Your task to perform on an android device: toggle data saver in the chrome app Image 0: 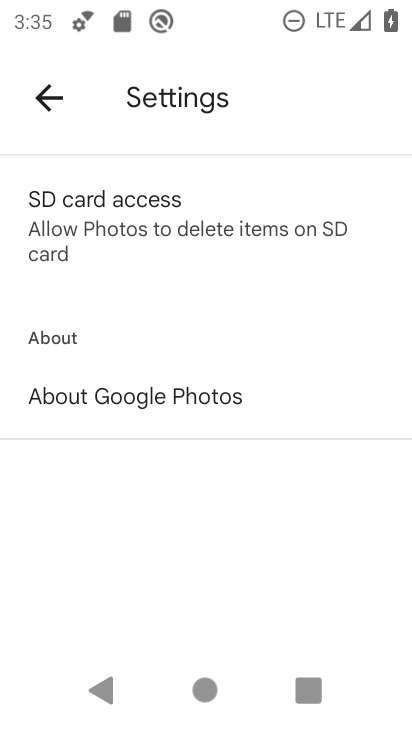
Step 0: press home button
Your task to perform on an android device: toggle data saver in the chrome app Image 1: 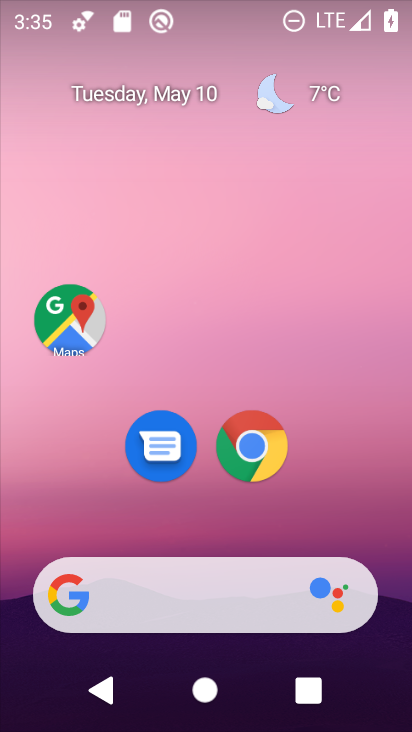
Step 1: click (255, 445)
Your task to perform on an android device: toggle data saver in the chrome app Image 2: 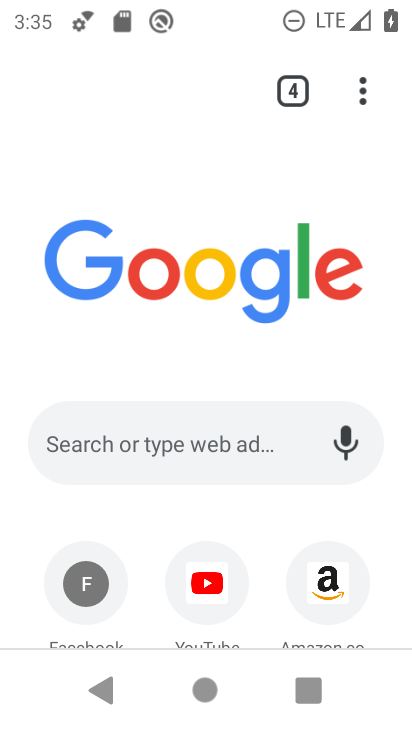
Step 2: click (364, 92)
Your task to perform on an android device: toggle data saver in the chrome app Image 3: 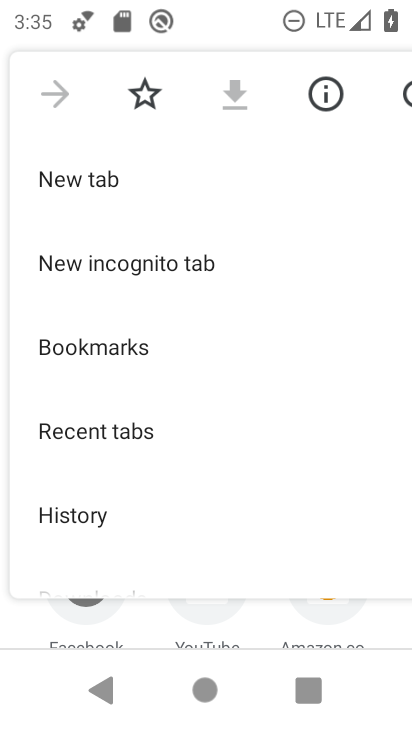
Step 3: drag from (193, 504) to (186, 171)
Your task to perform on an android device: toggle data saver in the chrome app Image 4: 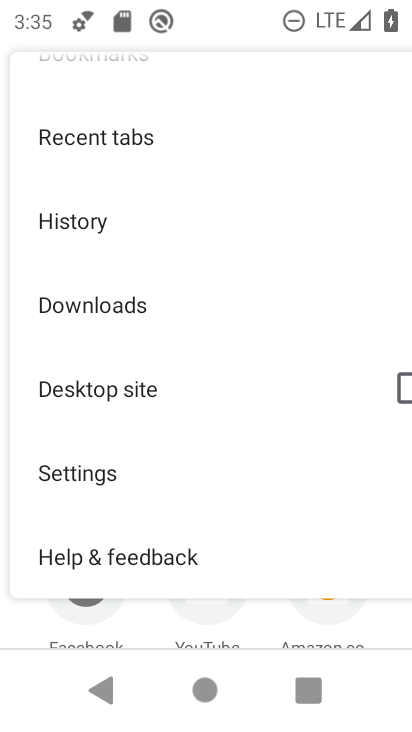
Step 4: click (135, 473)
Your task to perform on an android device: toggle data saver in the chrome app Image 5: 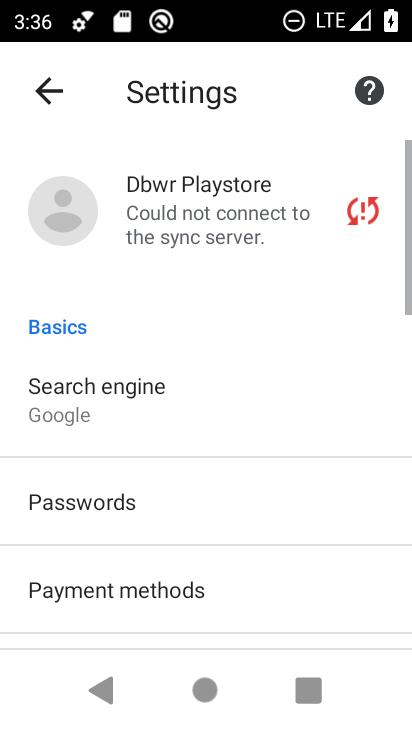
Step 5: drag from (228, 537) to (224, 150)
Your task to perform on an android device: toggle data saver in the chrome app Image 6: 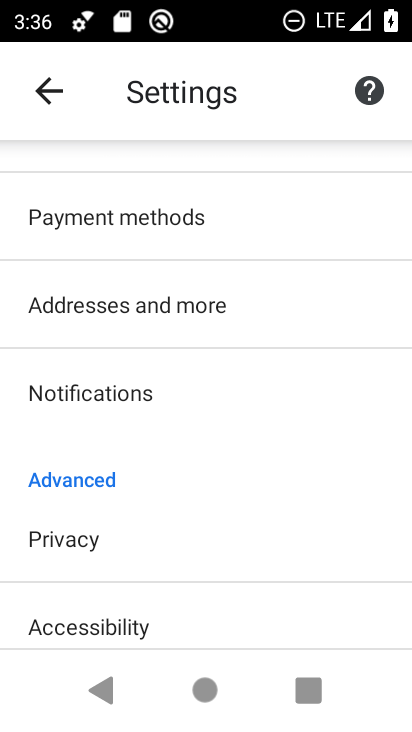
Step 6: drag from (157, 563) to (150, 287)
Your task to perform on an android device: toggle data saver in the chrome app Image 7: 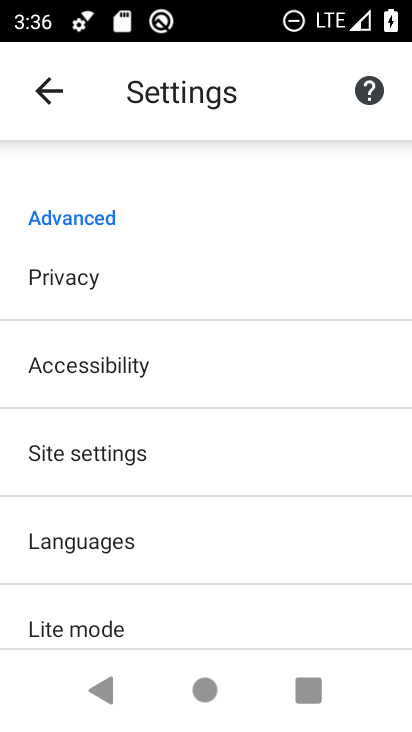
Step 7: click (116, 624)
Your task to perform on an android device: toggle data saver in the chrome app Image 8: 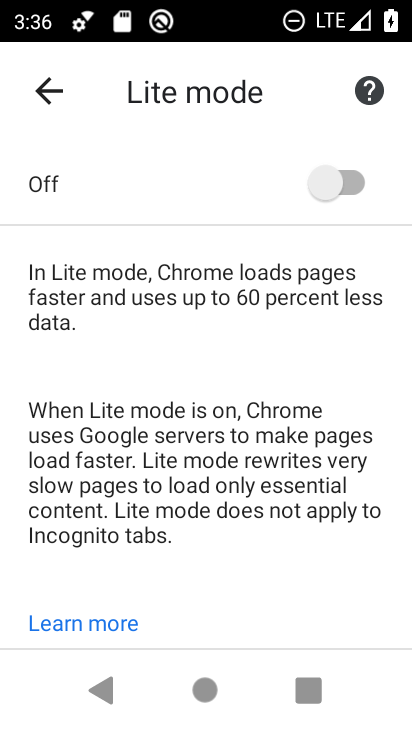
Step 8: click (352, 185)
Your task to perform on an android device: toggle data saver in the chrome app Image 9: 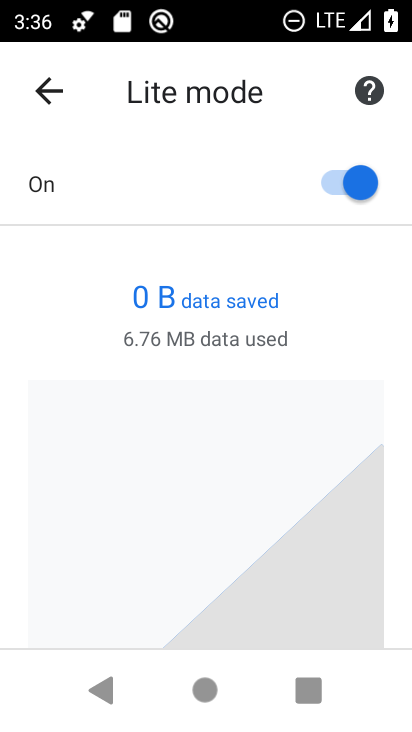
Step 9: task complete